Your task to perform on an android device: What's the weather going to be this weekend? Image 0: 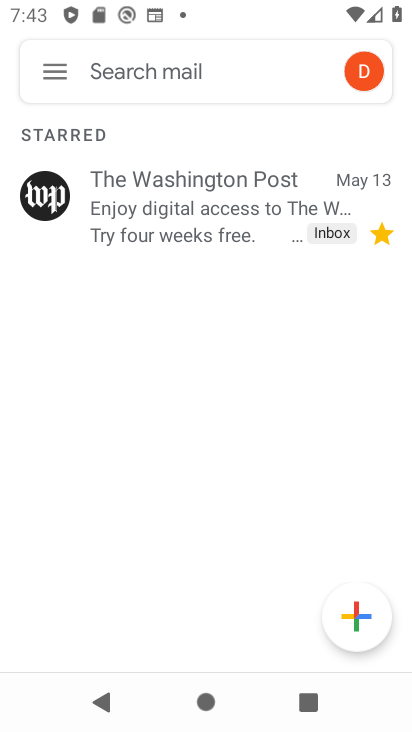
Step 0: press home button
Your task to perform on an android device: What's the weather going to be this weekend? Image 1: 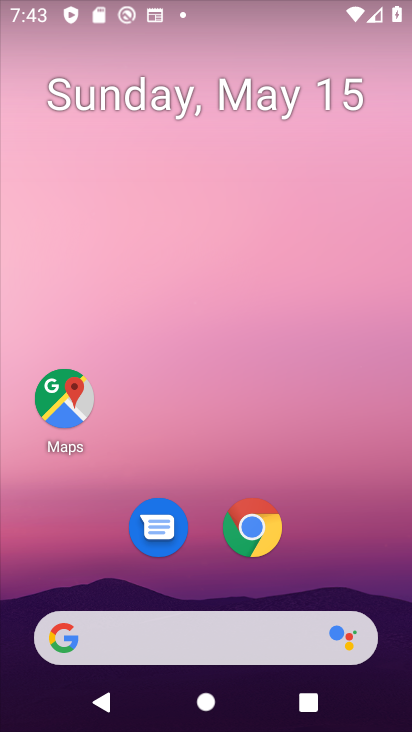
Step 1: click (74, 641)
Your task to perform on an android device: What's the weather going to be this weekend? Image 2: 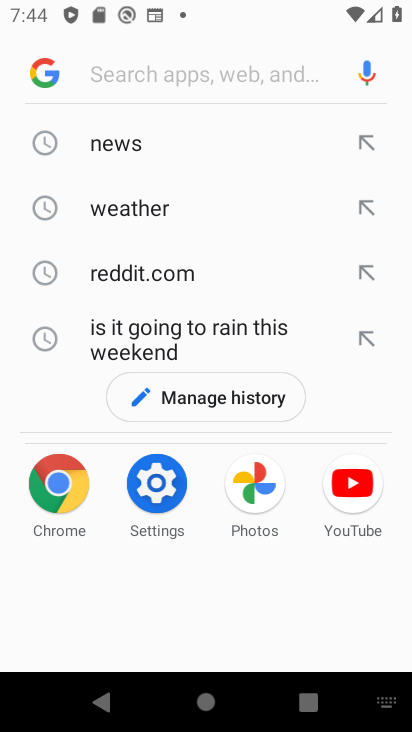
Step 2: click (151, 206)
Your task to perform on an android device: What's the weather going to be this weekend? Image 3: 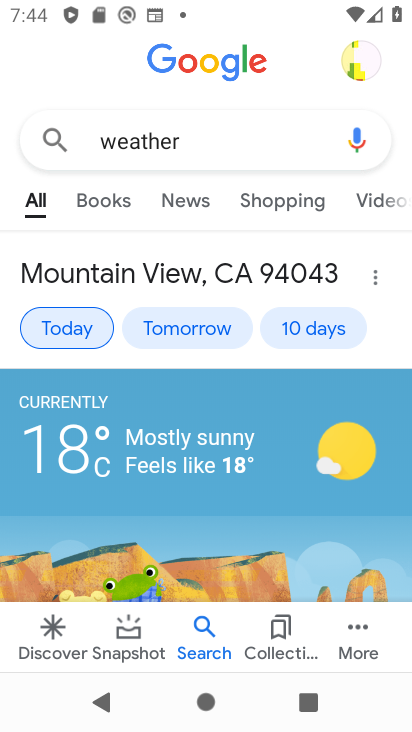
Step 3: click (297, 330)
Your task to perform on an android device: What's the weather going to be this weekend? Image 4: 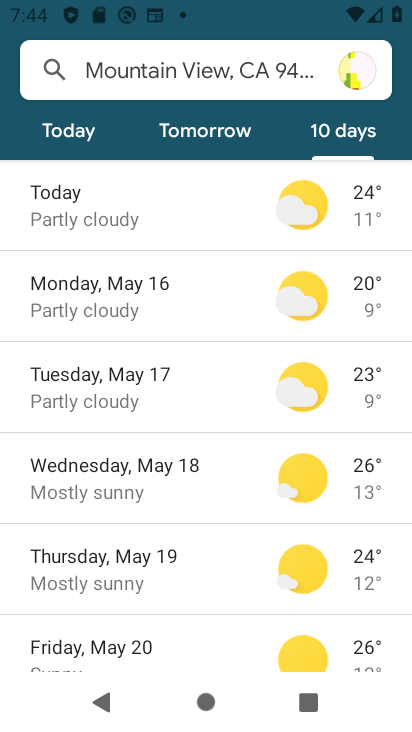
Step 4: drag from (132, 589) to (195, 165)
Your task to perform on an android device: What's the weather going to be this weekend? Image 5: 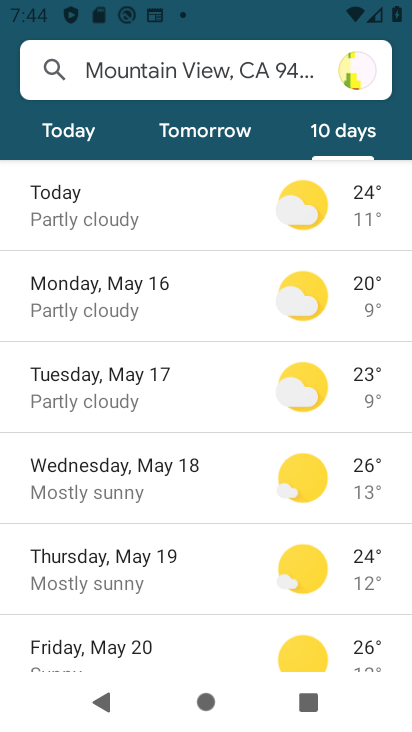
Step 5: drag from (375, 548) to (404, 135)
Your task to perform on an android device: What's the weather going to be this weekend? Image 6: 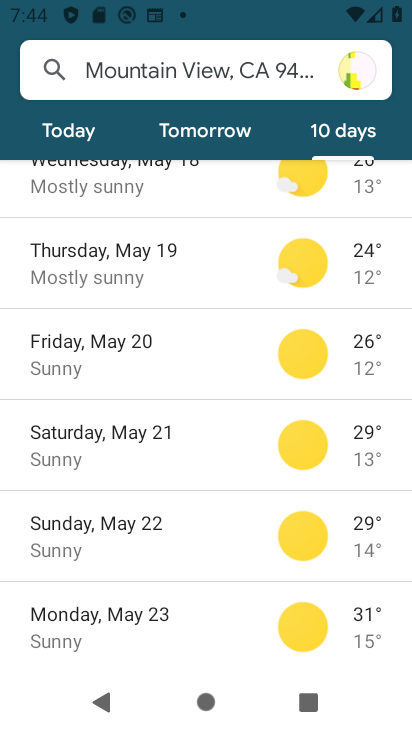
Step 6: click (160, 451)
Your task to perform on an android device: What's the weather going to be this weekend? Image 7: 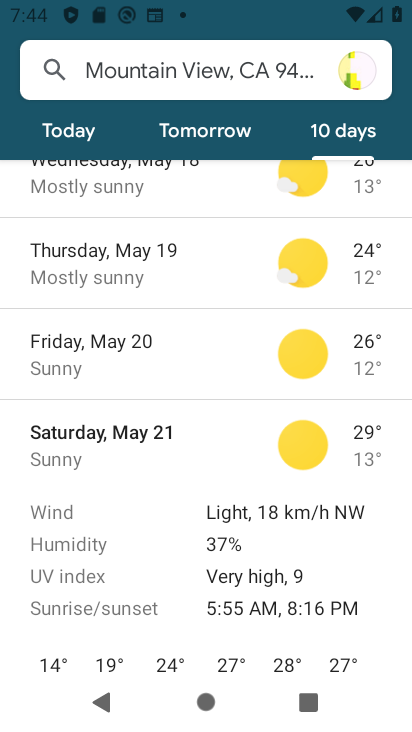
Step 7: task complete